Your task to perform on an android device: check google app version Image 0: 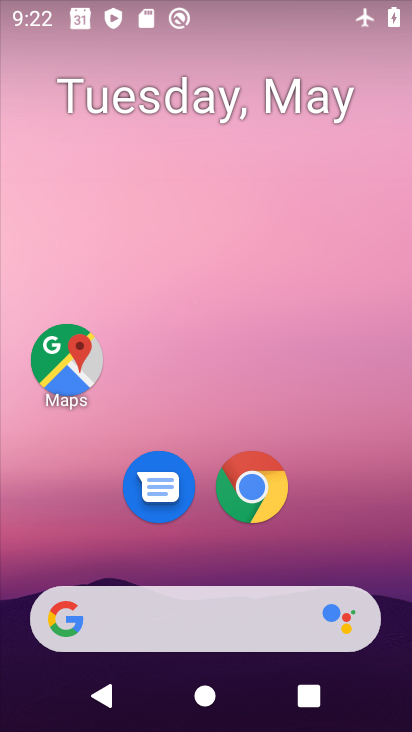
Step 0: drag from (221, 571) to (222, 228)
Your task to perform on an android device: check google app version Image 1: 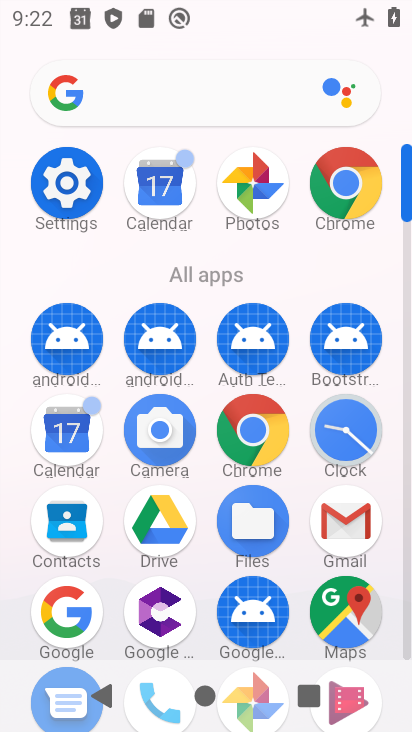
Step 1: drag from (194, 572) to (209, 191)
Your task to perform on an android device: check google app version Image 2: 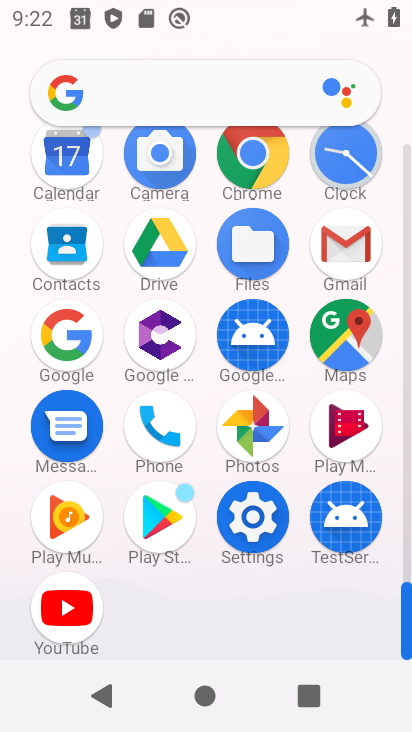
Step 2: click (71, 343)
Your task to perform on an android device: check google app version Image 3: 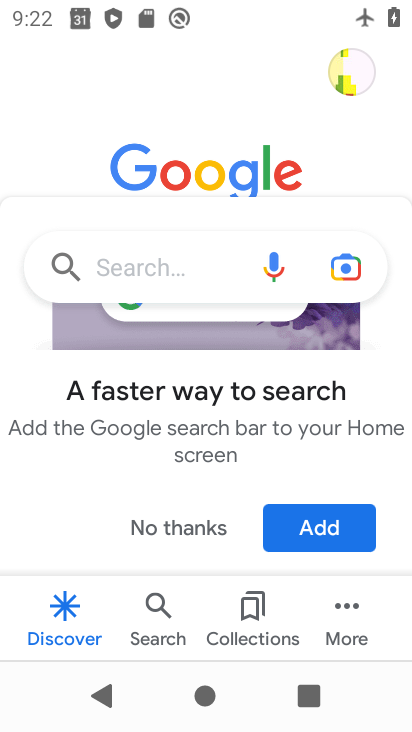
Step 3: click (342, 615)
Your task to perform on an android device: check google app version Image 4: 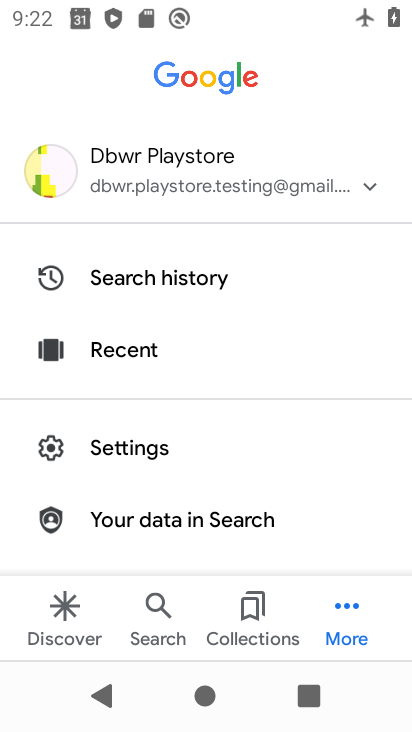
Step 4: drag from (251, 468) to (307, 183)
Your task to perform on an android device: check google app version Image 5: 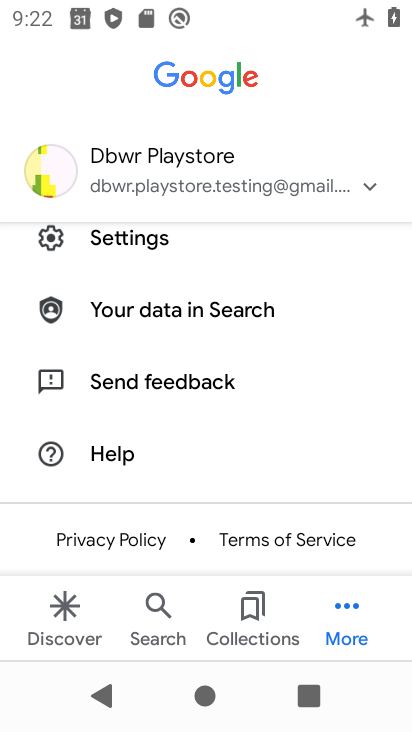
Step 5: click (130, 250)
Your task to perform on an android device: check google app version Image 6: 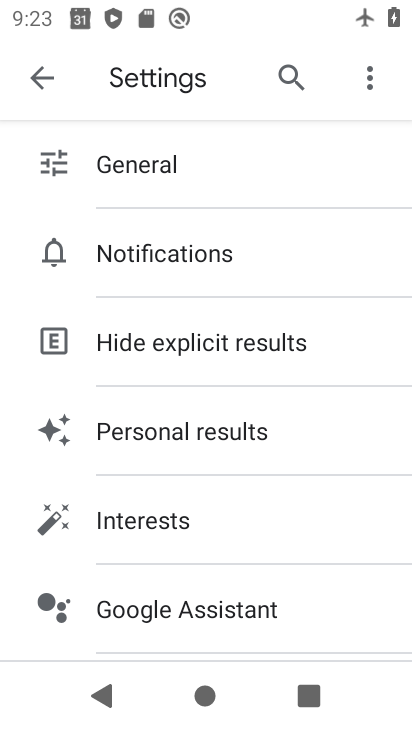
Step 6: drag from (223, 500) to (320, 181)
Your task to perform on an android device: check google app version Image 7: 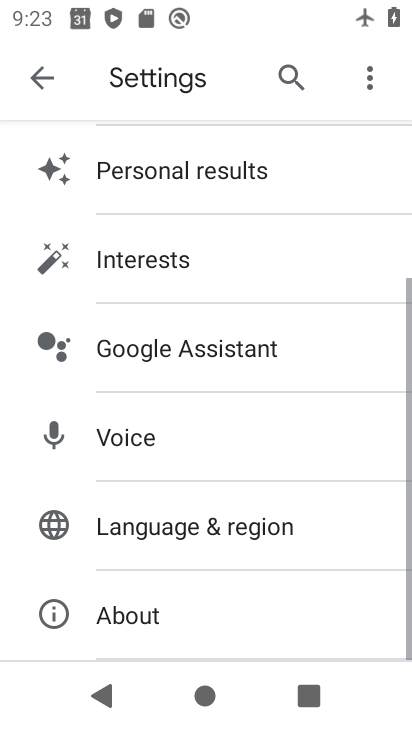
Step 7: drag from (198, 170) to (259, 667)
Your task to perform on an android device: check google app version Image 8: 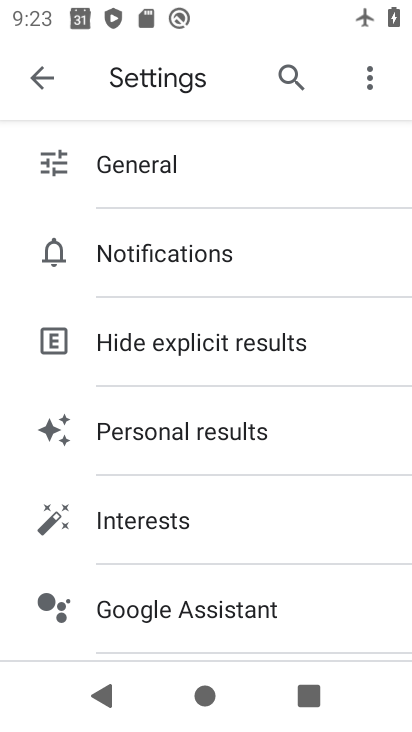
Step 8: click (164, 159)
Your task to perform on an android device: check google app version Image 9: 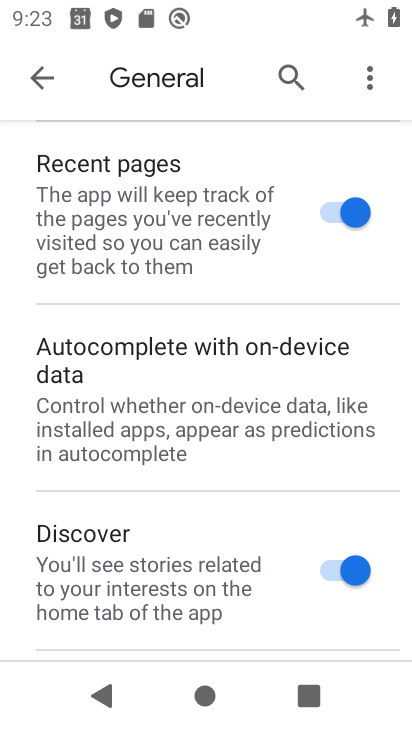
Step 9: click (48, 88)
Your task to perform on an android device: check google app version Image 10: 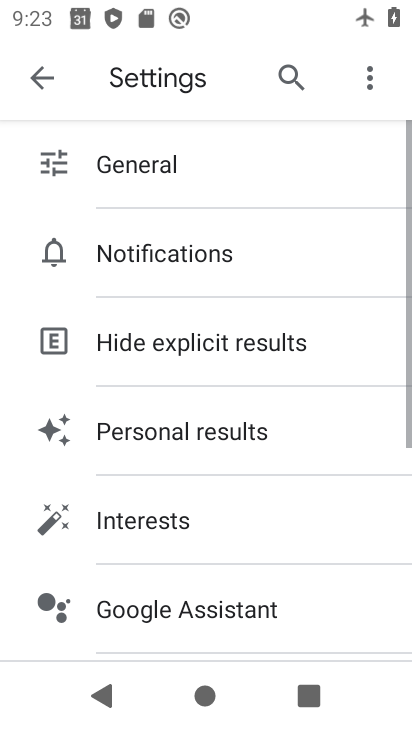
Step 10: drag from (284, 544) to (343, 105)
Your task to perform on an android device: check google app version Image 11: 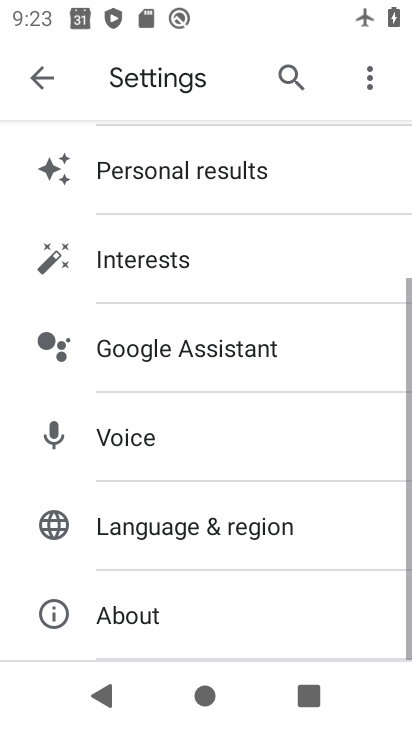
Step 11: click (185, 643)
Your task to perform on an android device: check google app version Image 12: 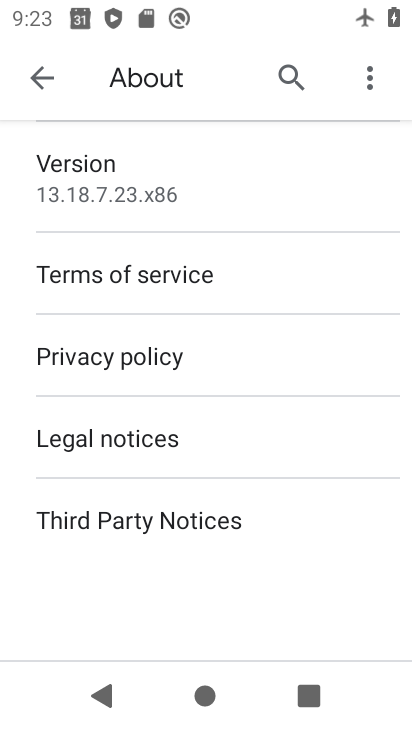
Step 12: click (159, 207)
Your task to perform on an android device: check google app version Image 13: 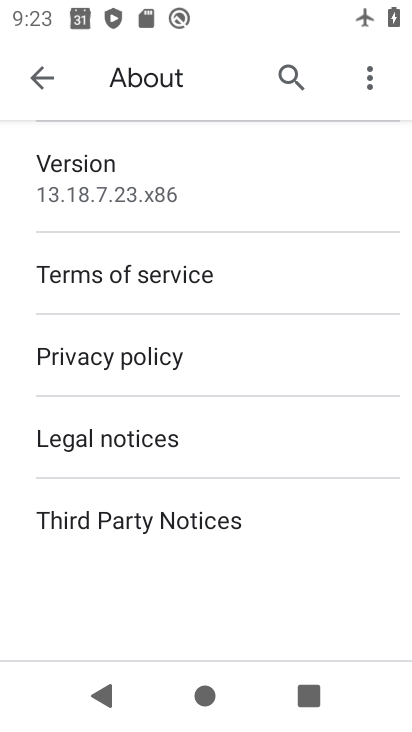
Step 13: task complete